Your task to perform on an android device: set the timer Image 0: 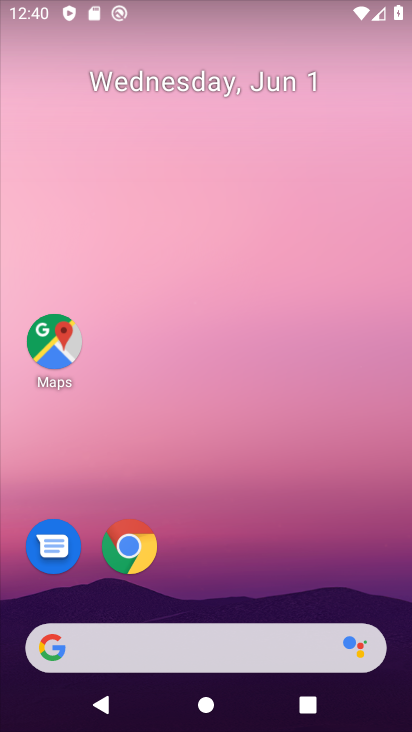
Step 0: drag from (310, 584) to (286, 243)
Your task to perform on an android device: set the timer Image 1: 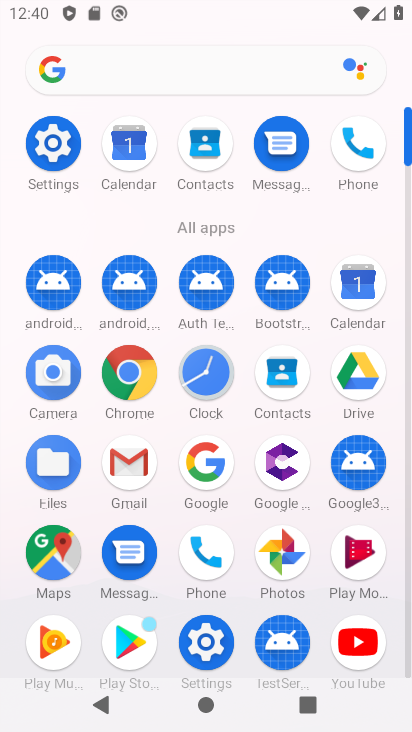
Step 1: click (197, 370)
Your task to perform on an android device: set the timer Image 2: 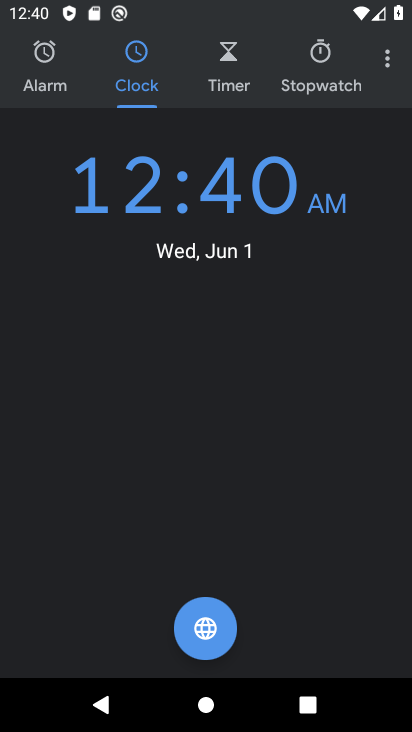
Step 2: click (244, 97)
Your task to perform on an android device: set the timer Image 3: 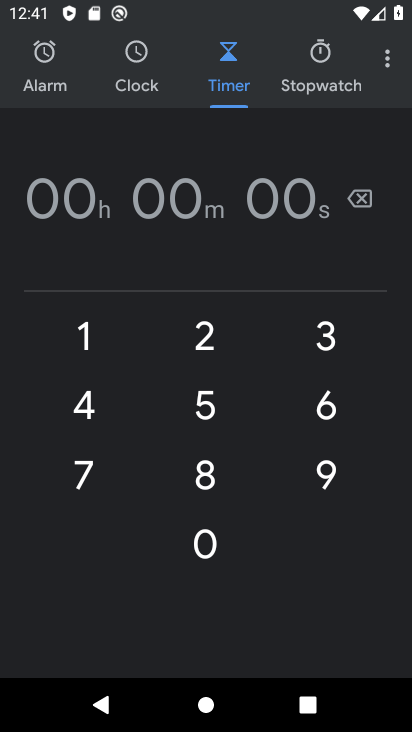
Step 3: click (227, 339)
Your task to perform on an android device: set the timer Image 4: 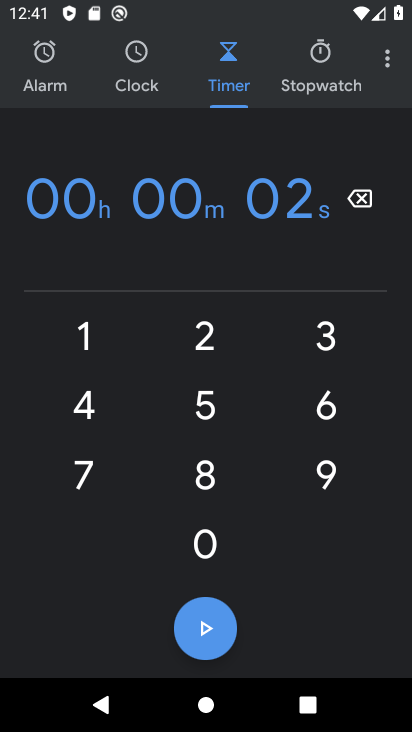
Step 4: click (213, 389)
Your task to perform on an android device: set the timer Image 5: 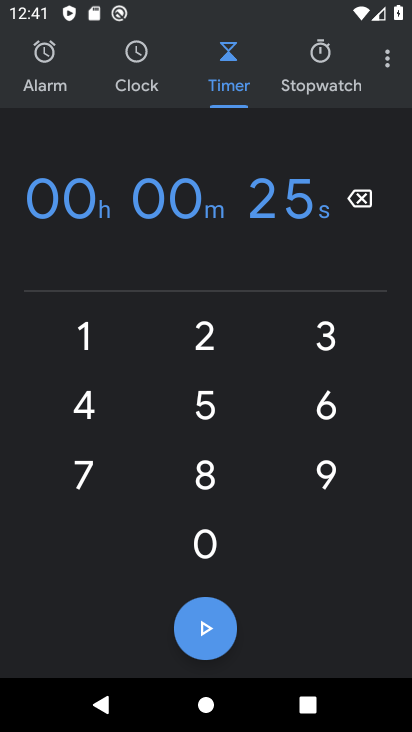
Step 5: task complete